Your task to perform on an android device: change the clock display to show seconds Image 0: 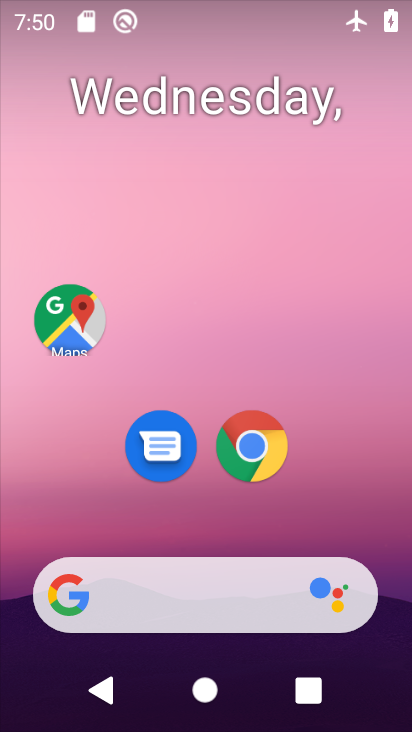
Step 0: drag from (213, 515) to (256, 64)
Your task to perform on an android device: change the clock display to show seconds Image 1: 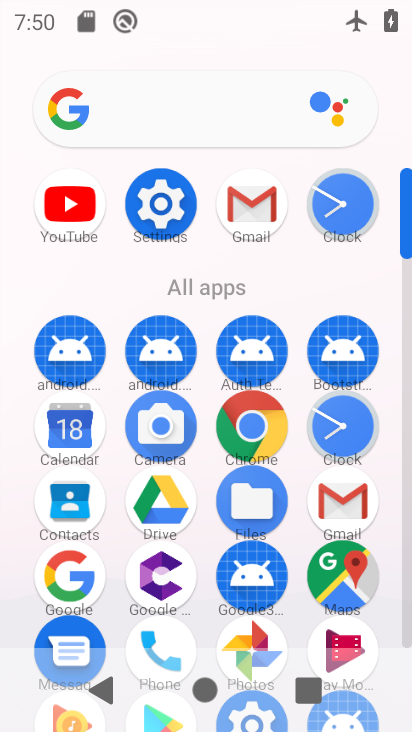
Step 1: click (348, 427)
Your task to perform on an android device: change the clock display to show seconds Image 2: 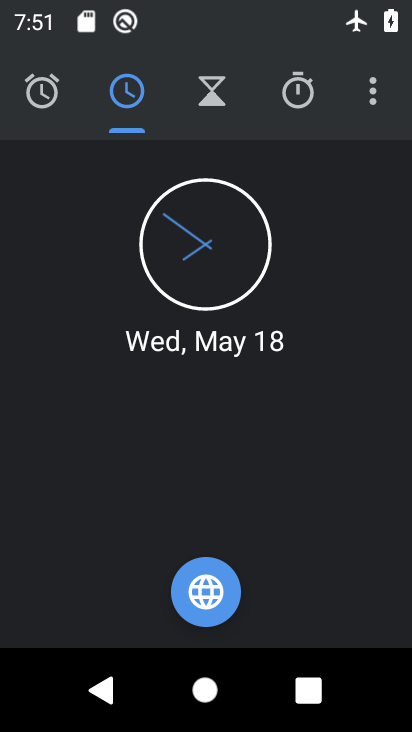
Step 2: click (371, 83)
Your task to perform on an android device: change the clock display to show seconds Image 3: 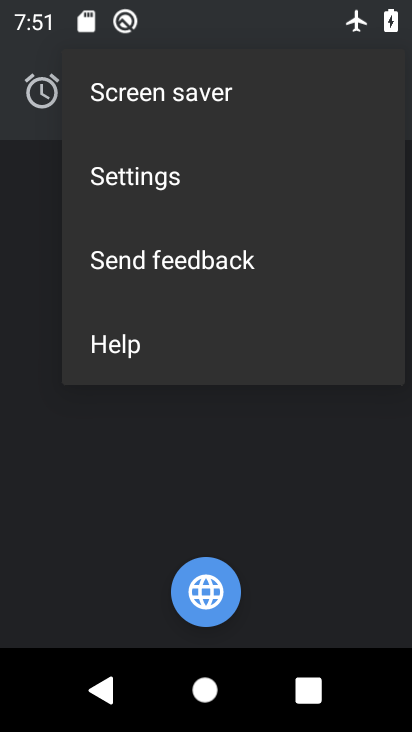
Step 3: click (193, 175)
Your task to perform on an android device: change the clock display to show seconds Image 4: 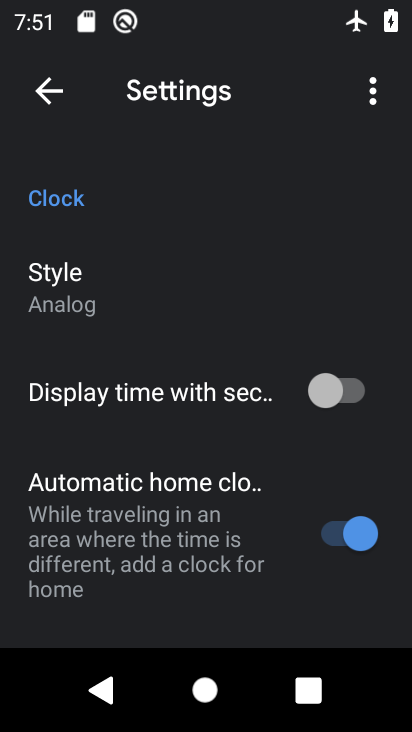
Step 4: click (339, 394)
Your task to perform on an android device: change the clock display to show seconds Image 5: 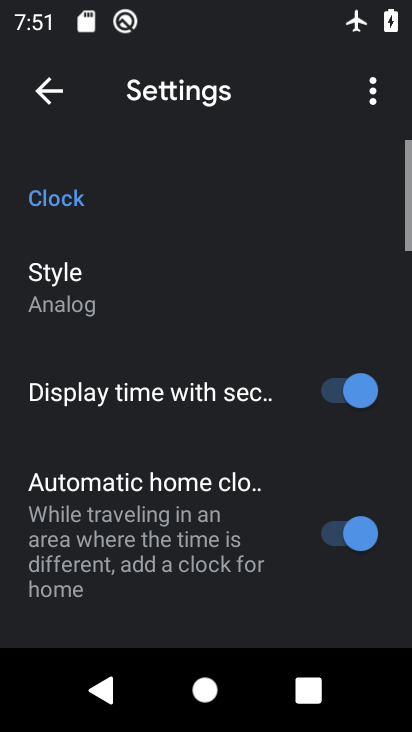
Step 5: task complete